Your task to perform on an android device: find which apps use the phone's location Image 0: 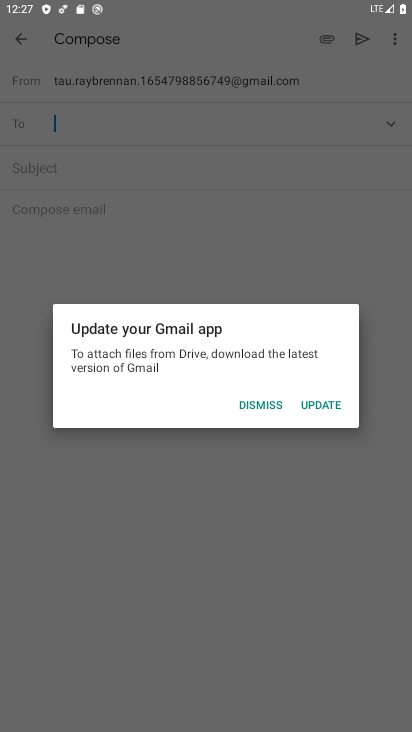
Step 0: press home button
Your task to perform on an android device: find which apps use the phone's location Image 1: 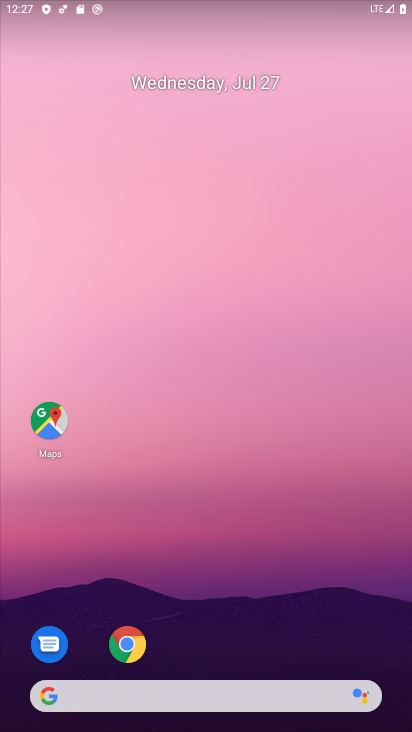
Step 1: drag from (209, 603) to (236, 145)
Your task to perform on an android device: find which apps use the phone's location Image 2: 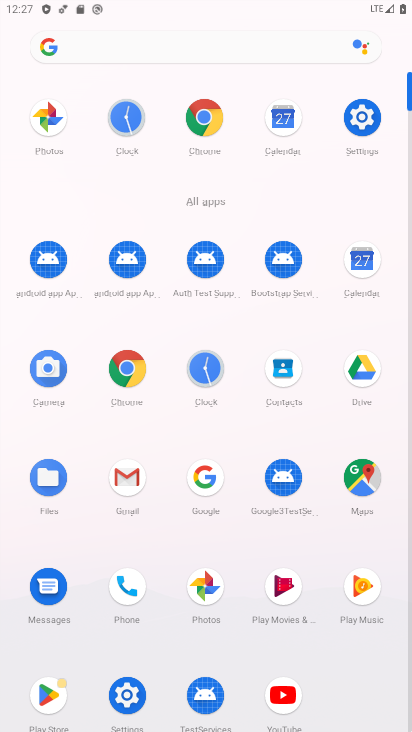
Step 2: click (118, 687)
Your task to perform on an android device: find which apps use the phone's location Image 3: 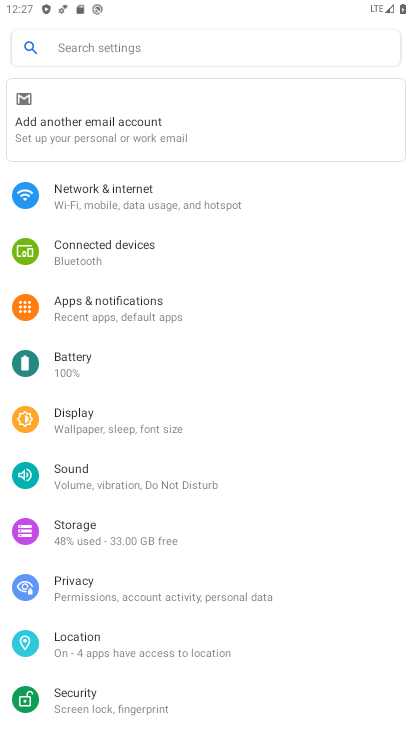
Step 3: click (104, 647)
Your task to perform on an android device: find which apps use the phone's location Image 4: 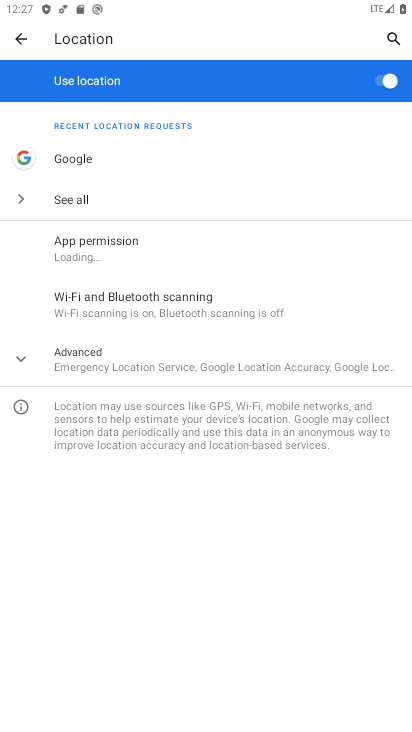
Step 4: click (146, 259)
Your task to perform on an android device: find which apps use the phone's location Image 5: 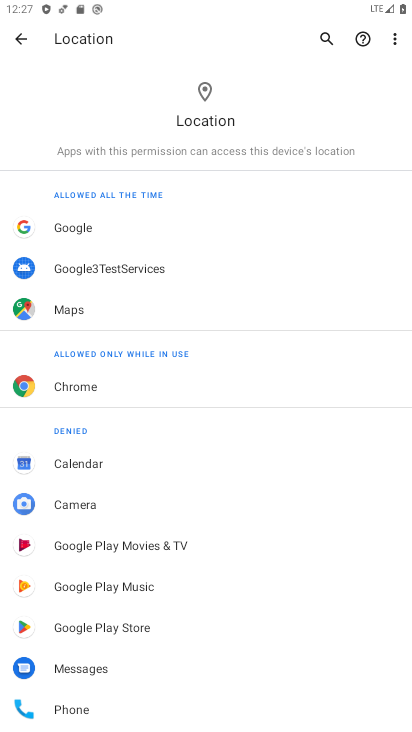
Step 5: task complete